Your task to perform on an android device: turn off priority inbox in the gmail app Image 0: 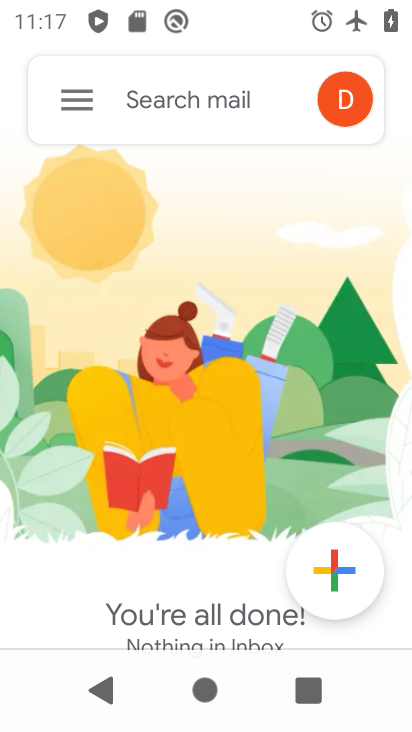
Step 0: press home button
Your task to perform on an android device: turn off priority inbox in the gmail app Image 1: 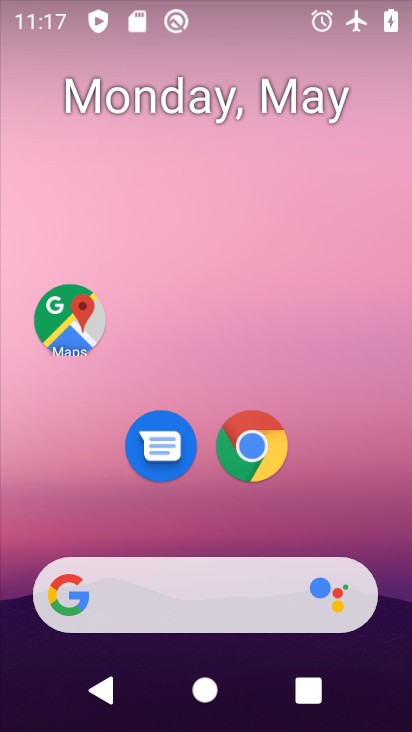
Step 1: drag from (302, 475) to (196, 159)
Your task to perform on an android device: turn off priority inbox in the gmail app Image 2: 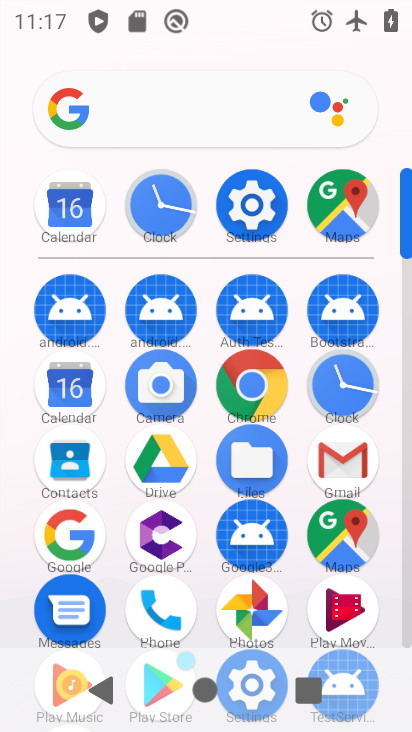
Step 2: click (350, 470)
Your task to perform on an android device: turn off priority inbox in the gmail app Image 3: 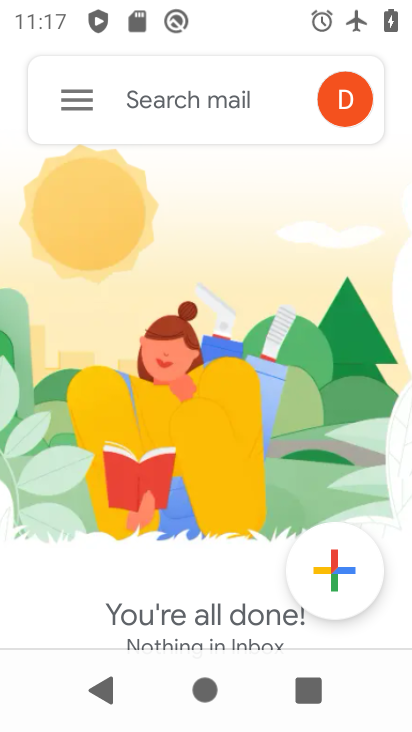
Step 3: click (69, 98)
Your task to perform on an android device: turn off priority inbox in the gmail app Image 4: 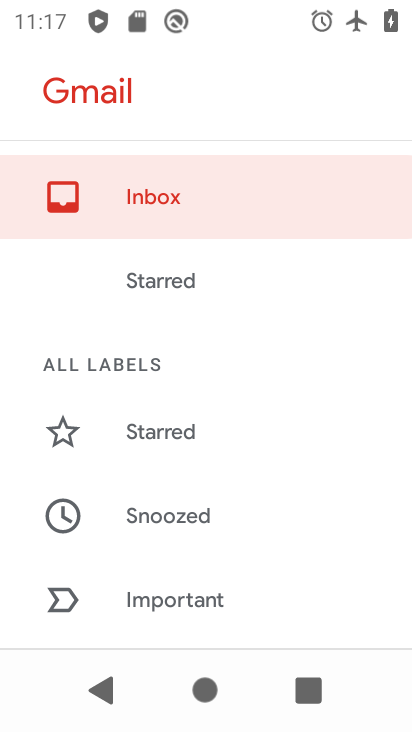
Step 4: drag from (191, 546) to (161, 166)
Your task to perform on an android device: turn off priority inbox in the gmail app Image 5: 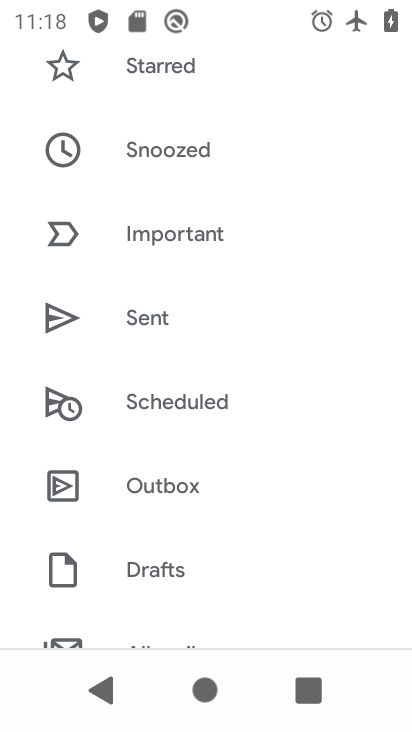
Step 5: drag from (172, 577) to (165, 130)
Your task to perform on an android device: turn off priority inbox in the gmail app Image 6: 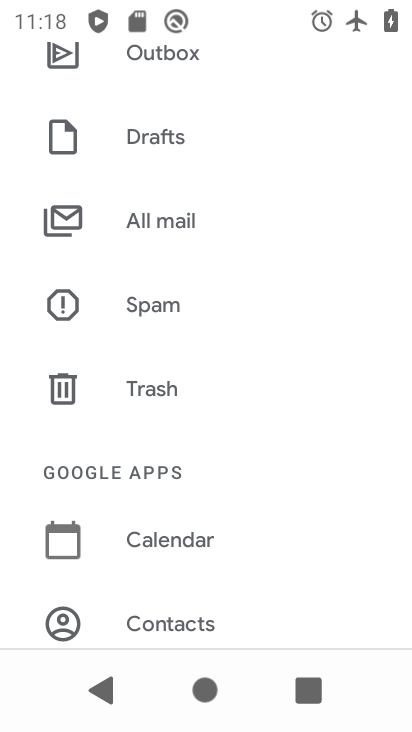
Step 6: drag from (155, 569) to (149, 214)
Your task to perform on an android device: turn off priority inbox in the gmail app Image 7: 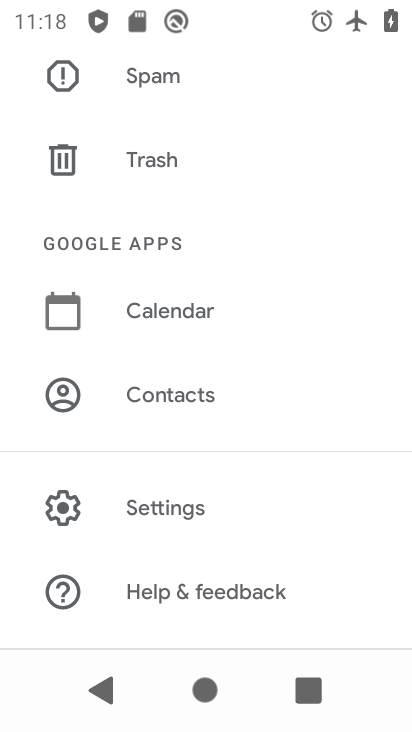
Step 7: click (160, 485)
Your task to perform on an android device: turn off priority inbox in the gmail app Image 8: 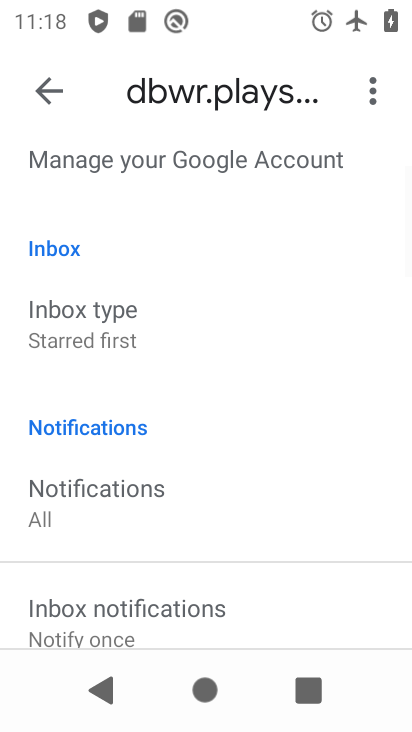
Step 8: click (100, 323)
Your task to perform on an android device: turn off priority inbox in the gmail app Image 9: 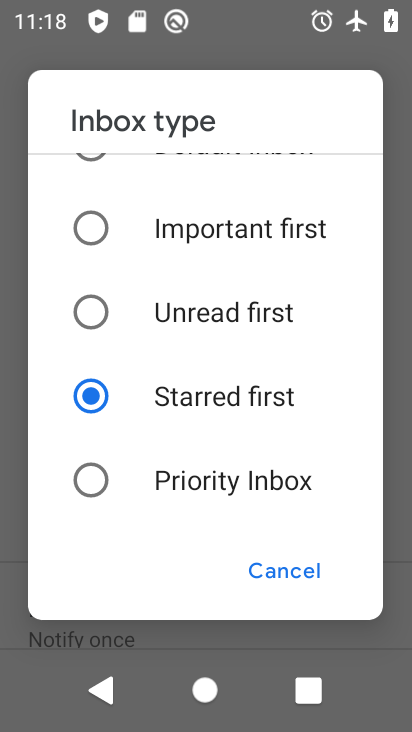
Step 9: task complete